Your task to perform on an android device: toggle translation in the chrome app Image 0: 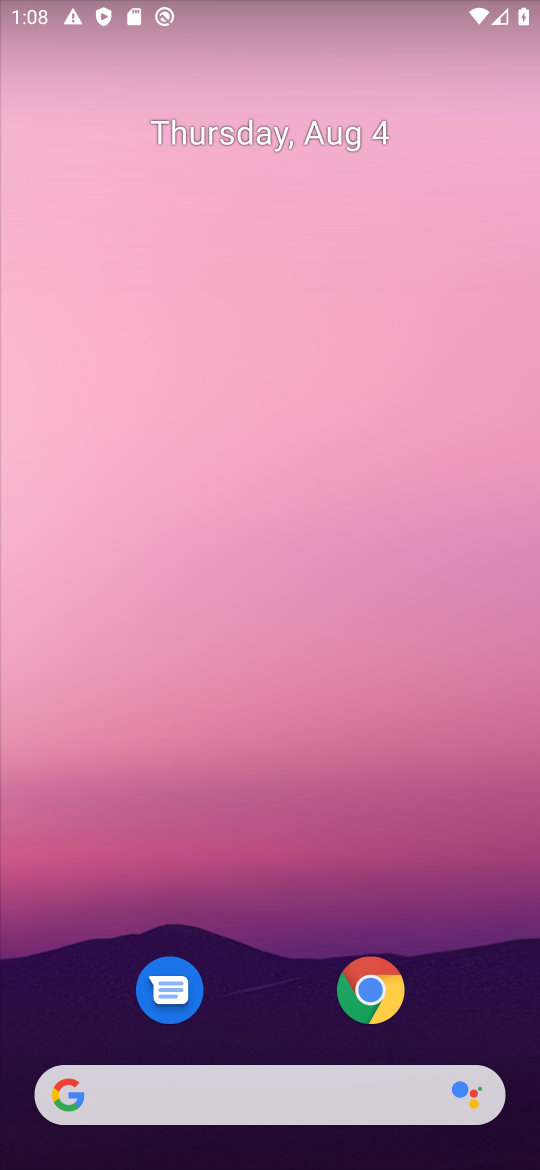
Step 0: click (400, 966)
Your task to perform on an android device: toggle translation in the chrome app Image 1: 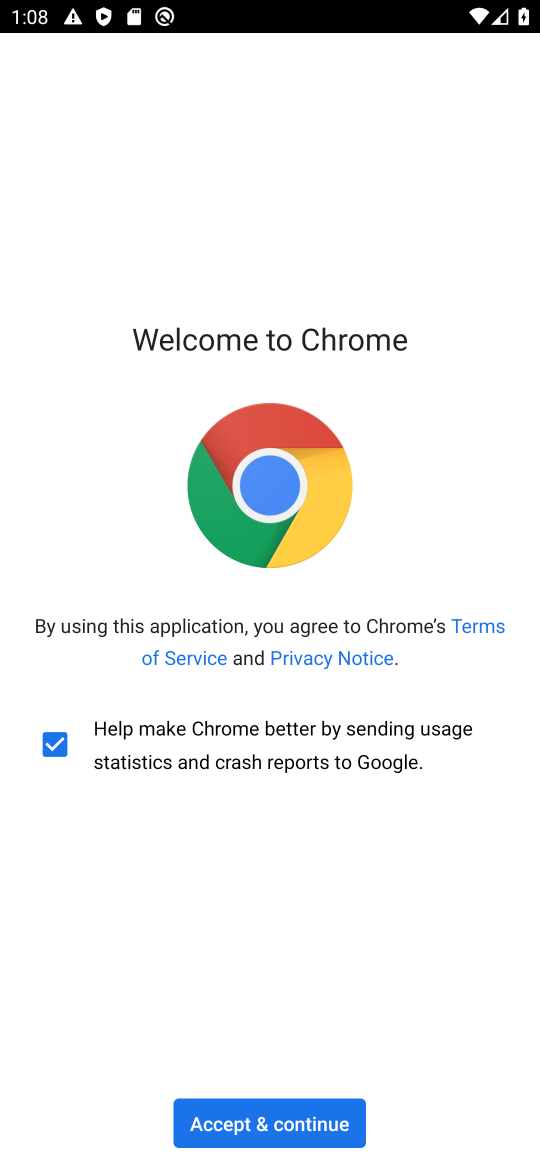
Step 1: click (325, 1093)
Your task to perform on an android device: toggle translation in the chrome app Image 2: 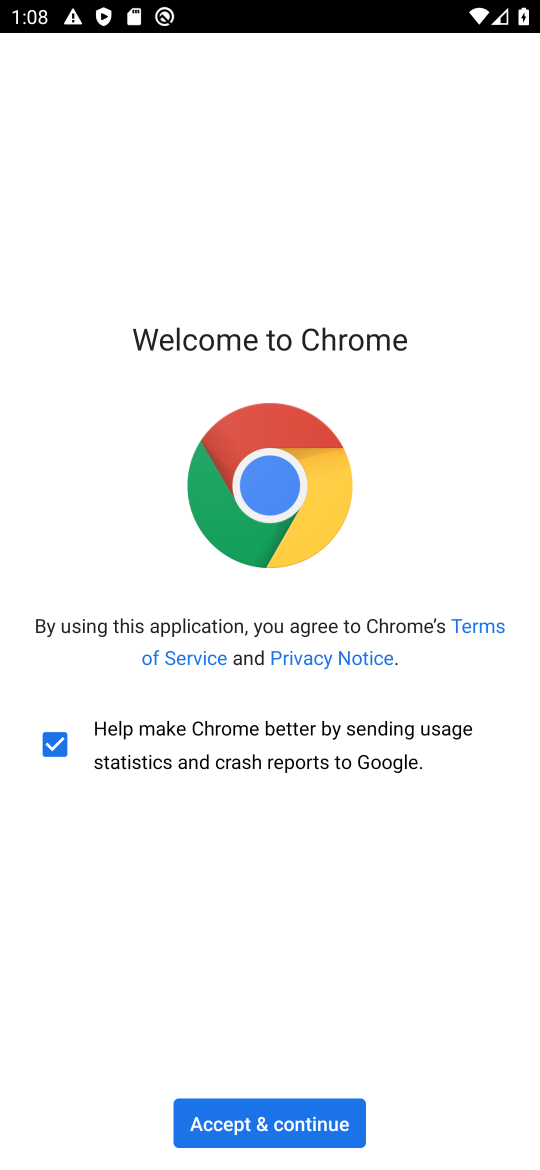
Step 2: click (313, 1108)
Your task to perform on an android device: toggle translation in the chrome app Image 3: 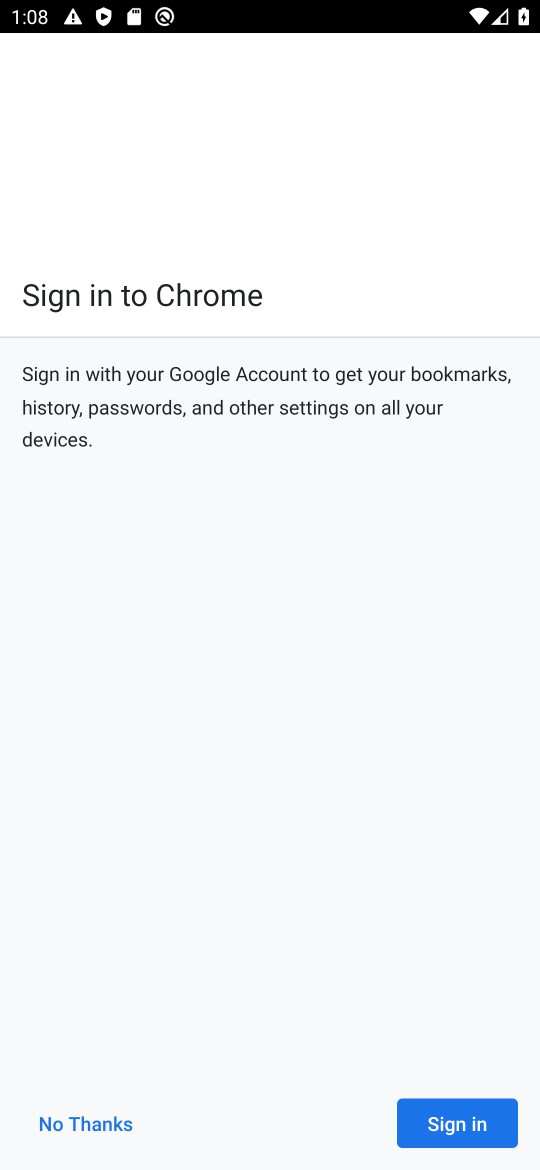
Step 3: click (408, 1106)
Your task to perform on an android device: toggle translation in the chrome app Image 4: 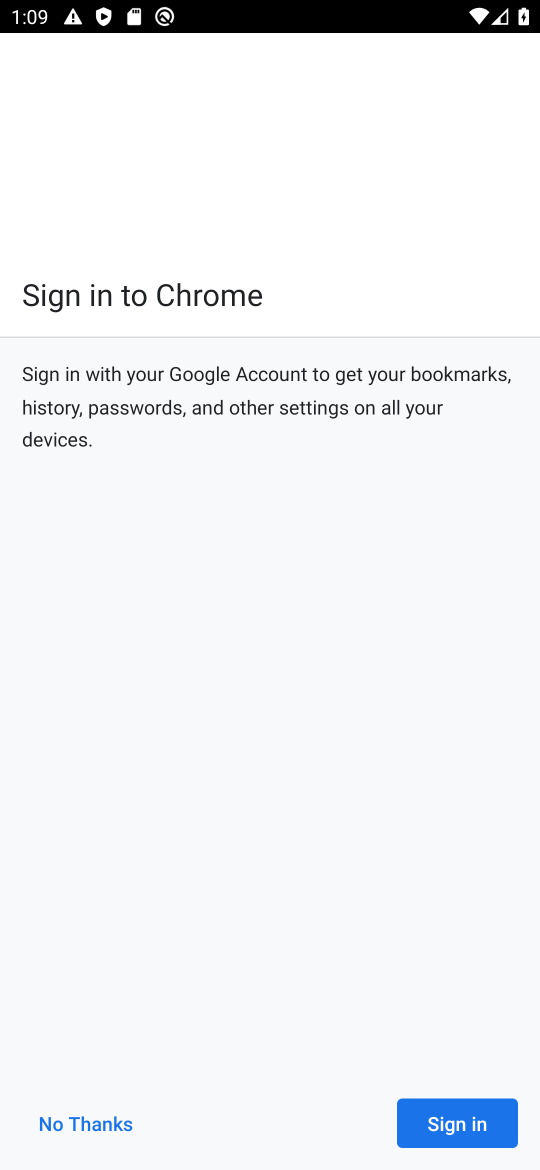
Step 4: click (408, 1106)
Your task to perform on an android device: toggle translation in the chrome app Image 5: 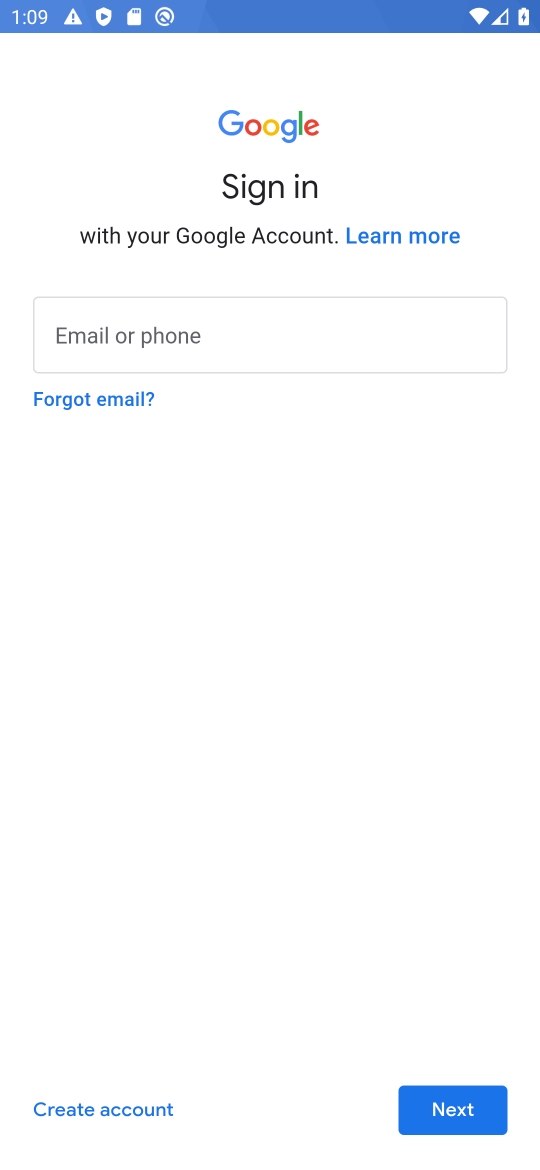
Step 5: task complete